Your task to perform on an android device: What's on my calendar today? Image 0: 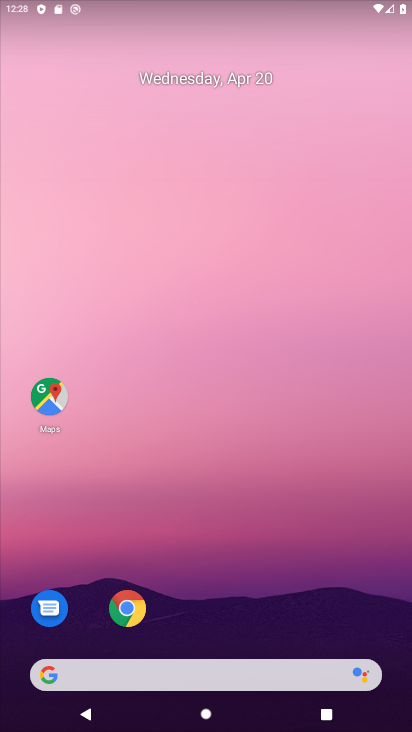
Step 0: drag from (282, 613) to (201, 175)
Your task to perform on an android device: What's on my calendar today? Image 1: 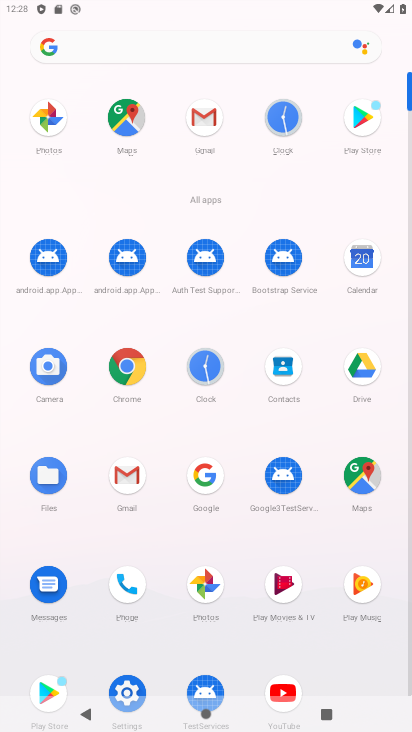
Step 1: click (365, 259)
Your task to perform on an android device: What's on my calendar today? Image 2: 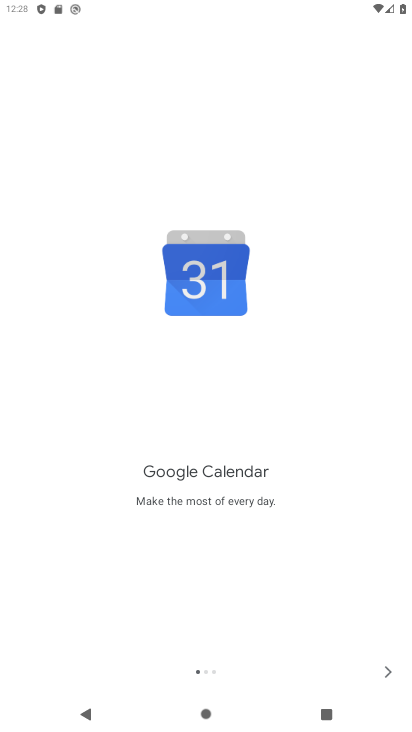
Step 2: click (388, 673)
Your task to perform on an android device: What's on my calendar today? Image 3: 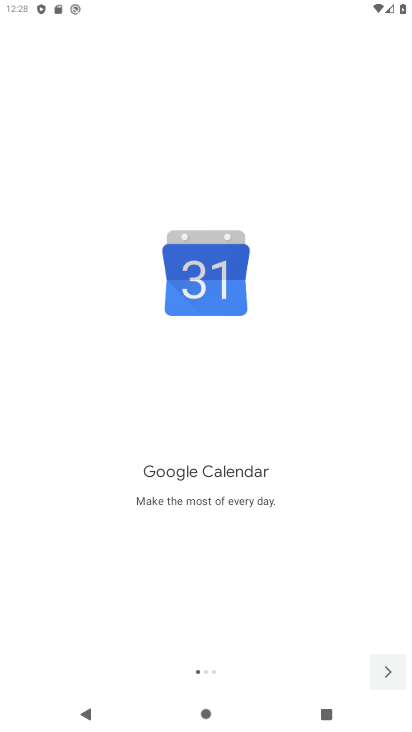
Step 3: click (388, 673)
Your task to perform on an android device: What's on my calendar today? Image 4: 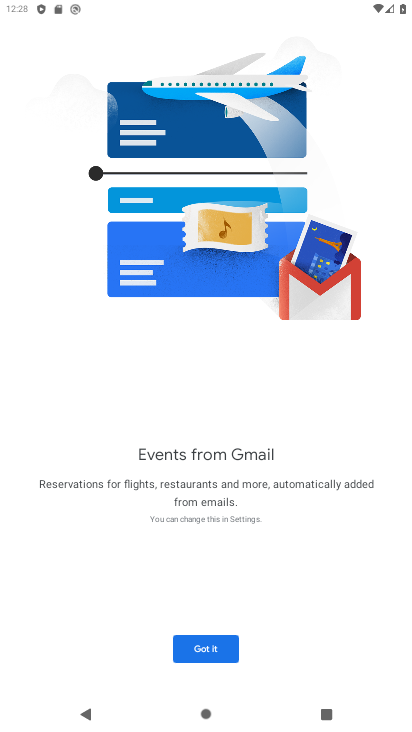
Step 4: click (388, 673)
Your task to perform on an android device: What's on my calendar today? Image 5: 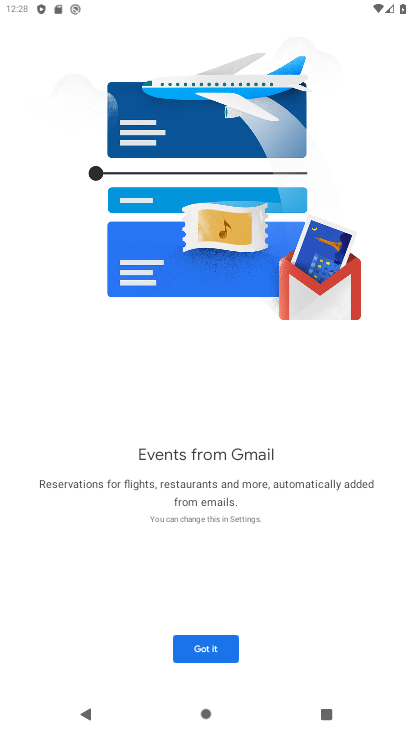
Step 5: click (224, 653)
Your task to perform on an android device: What's on my calendar today? Image 6: 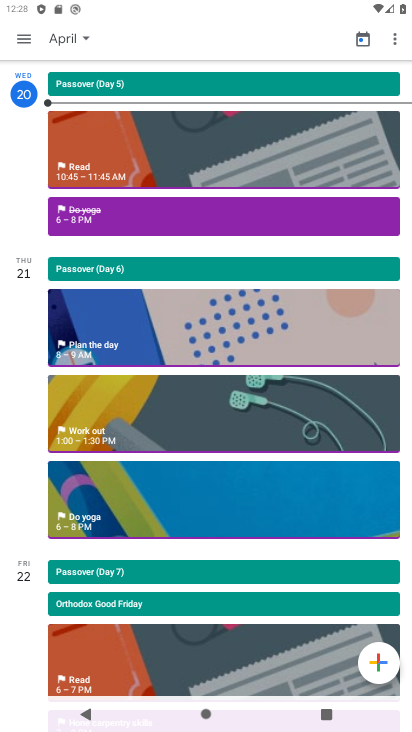
Step 6: click (24, 41)
Your task to perform on an android device: What's on my calendar today? Image 7: 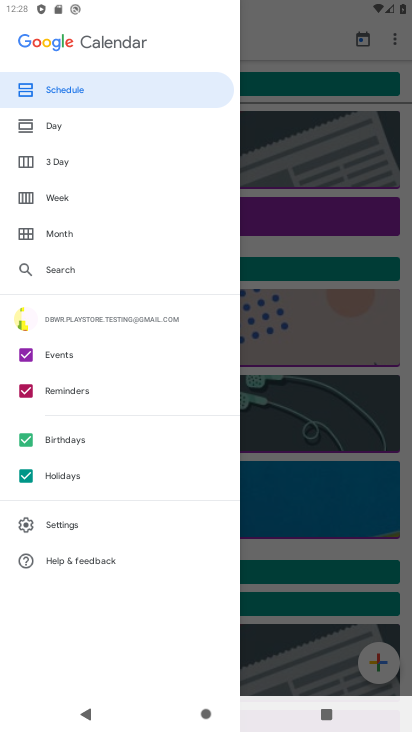
Step 7: click (69, 133)
Your task to perform on an android device: What's on my calendar today? Image 8: 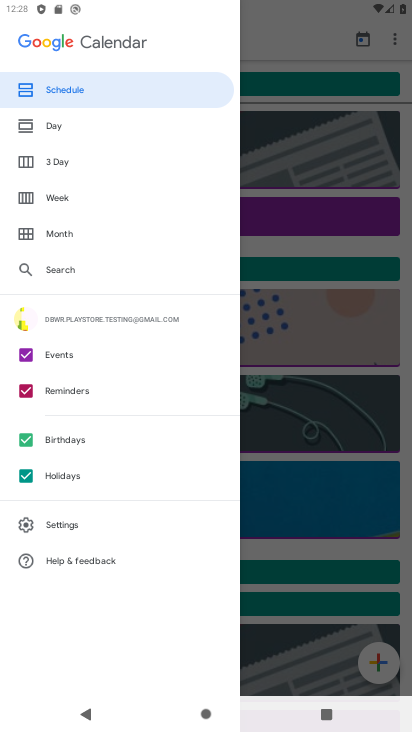
Step 8: click (41, 133)
Your task to perform on an android device: What's on my calendar today? Image 9: 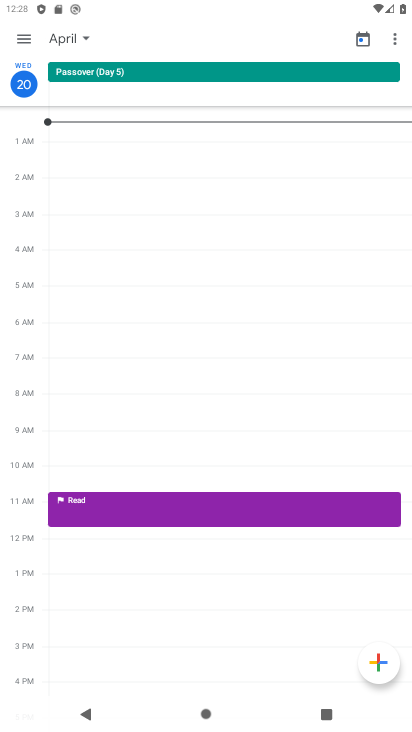
Step 9: task complete